Your task to perform on an android device: Turn off the flashlight Image 0: 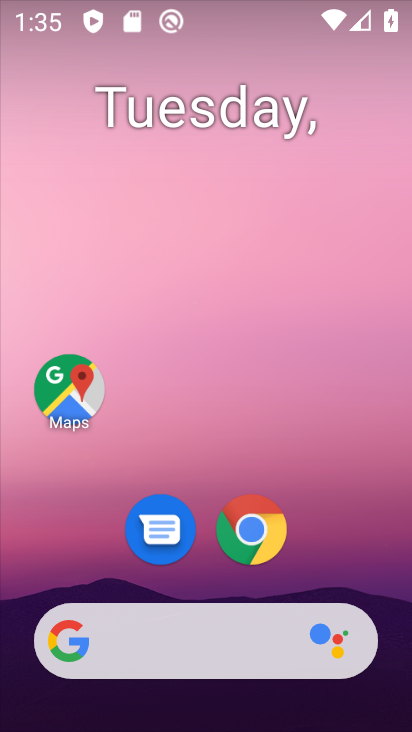
Step 0: drag from (391, 608) to (273, 66)
Your task to perform on an android device: Turn off the flashlight Image 1: 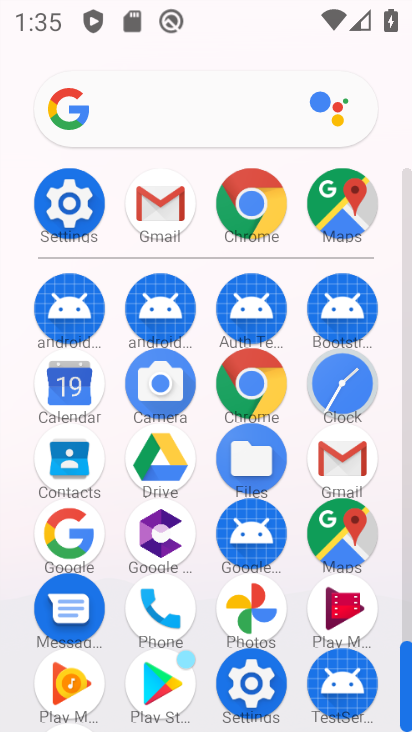
Step 1: click (80, 209)
Your task to perform on an android device: Turn off the flashlight Image 2: 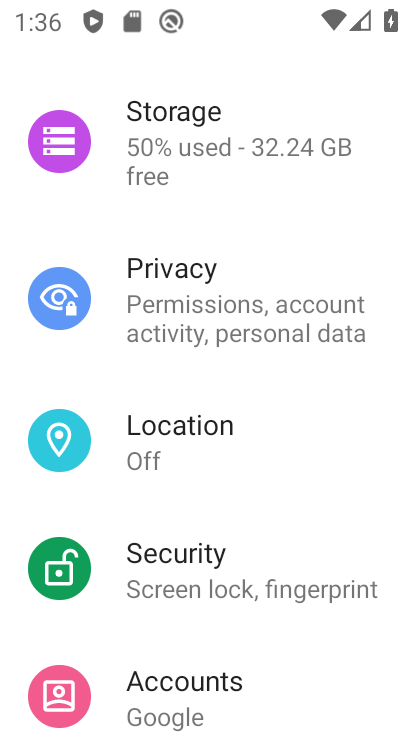
Step 2: task complete